Your task to perform on an android device: clear history in the chrome app Image 0: 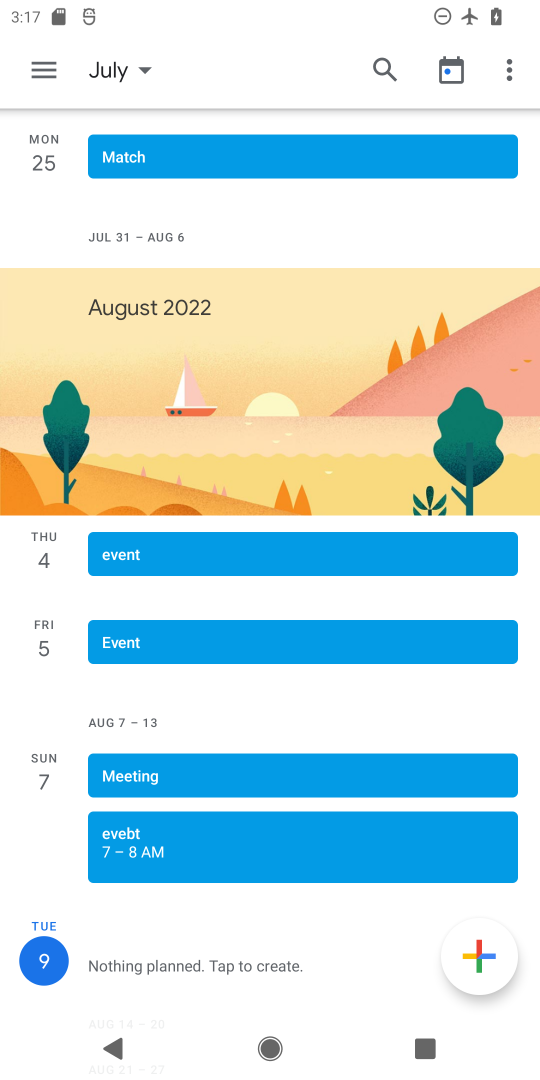
Step 0: press home button
Your task to perform on an android device: clear history in the chrome app Image 1: 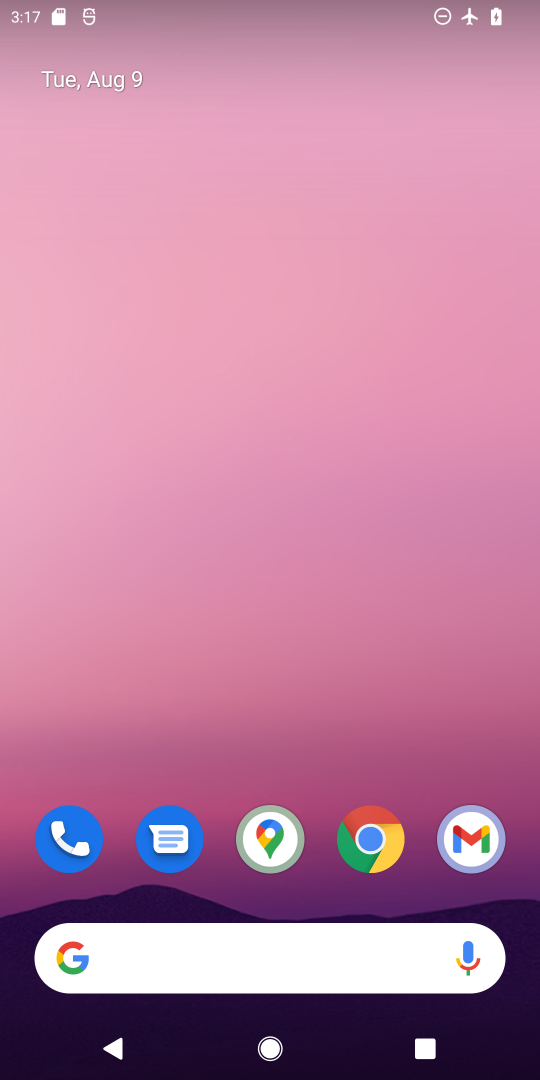
Step 1: drag from (328, 735) to (519, 1005)
Your task to perform on an android device: clear history in the chrome app Image 2: 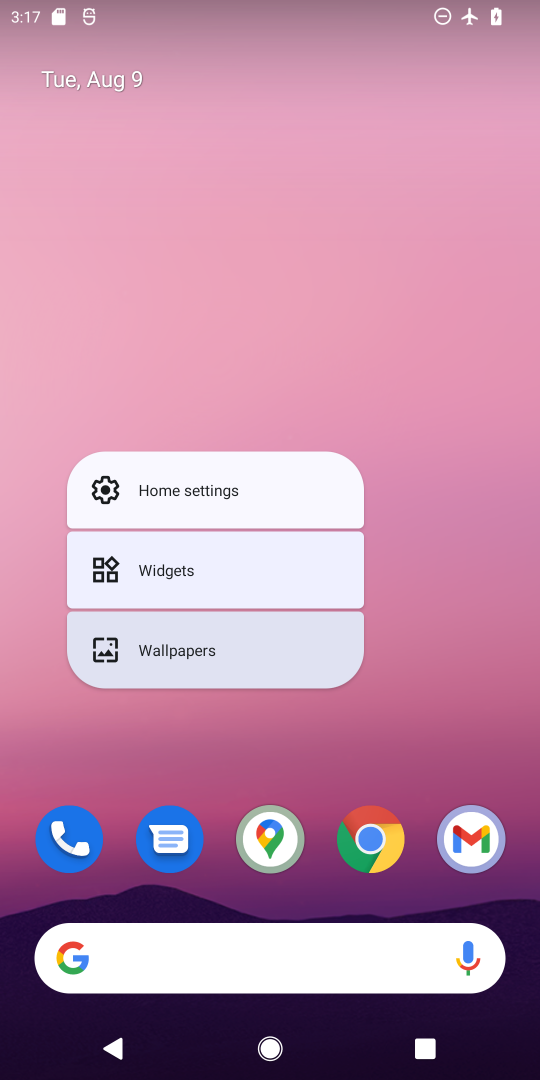
Step 2: click (381, 835)
Your task to perform on an android device: clear history in the chrome app Image 3: 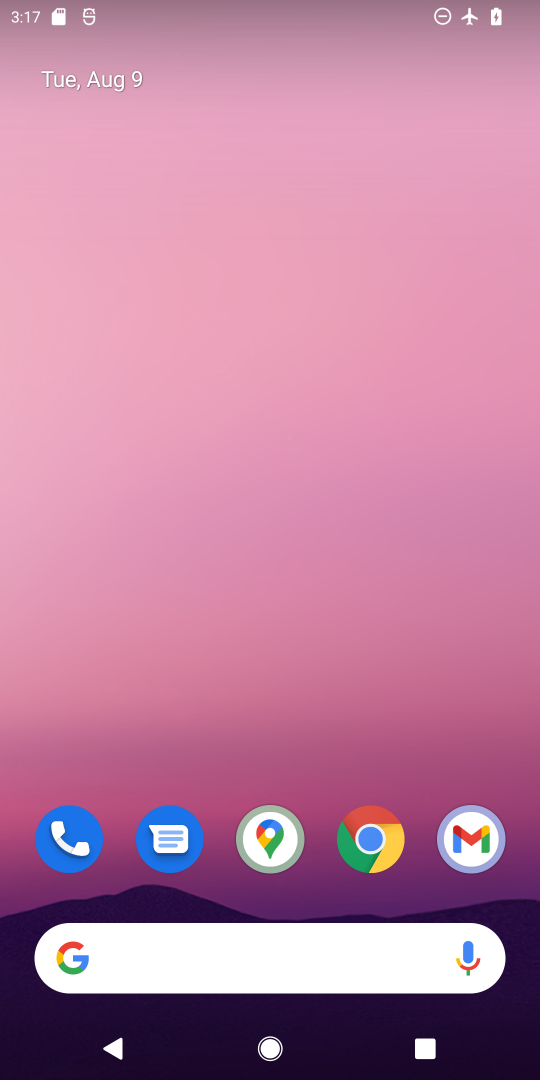
Step 3: click (370, 828)
Your task to perform on an android device: clear history in the chrome app Image 4: 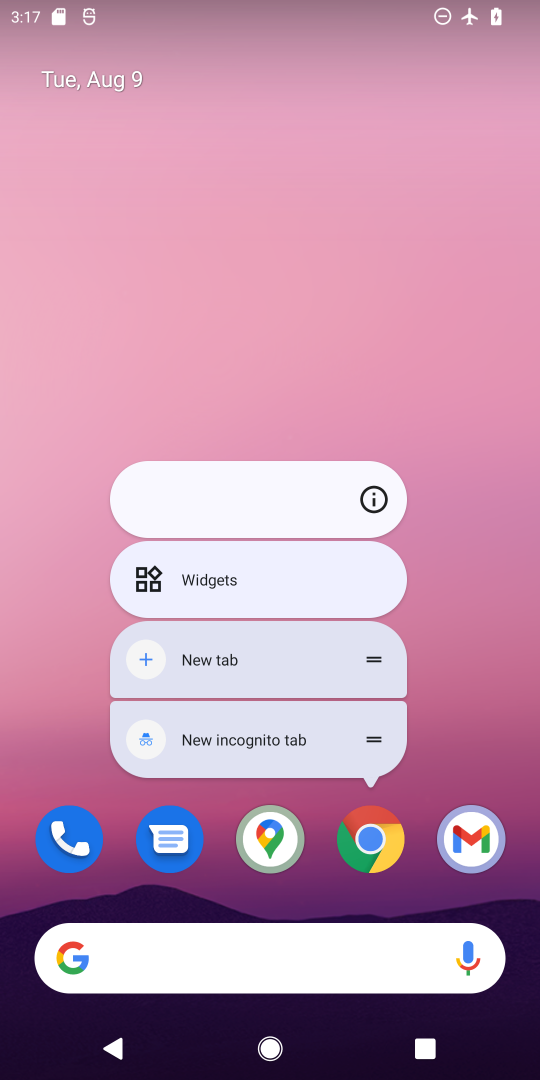
Step 4: click (386, 849)
Your task to perform on an android device: clear history in the chrome app Image 5: 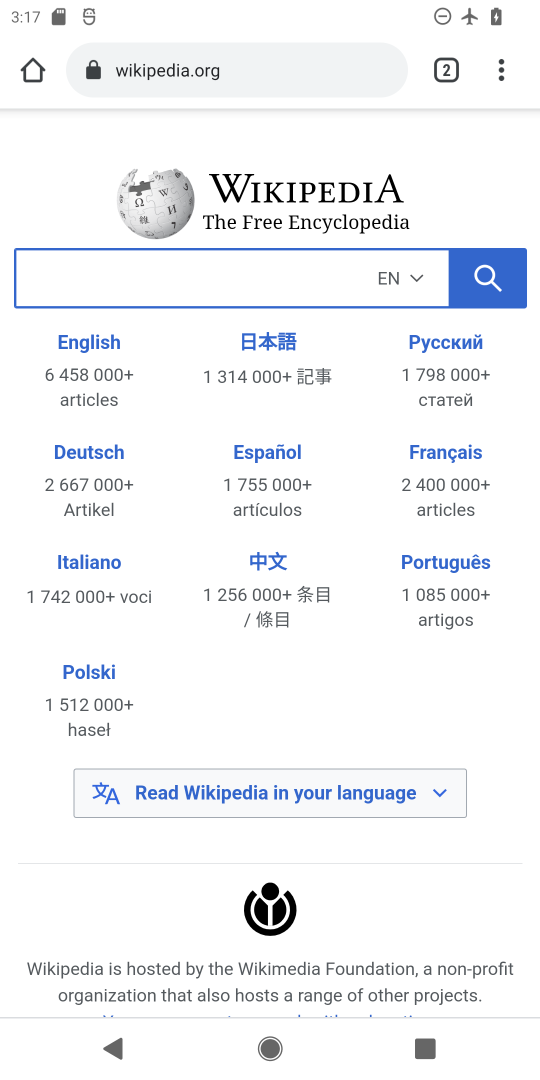
Step 5: drag from (498, 71) to (278, 837)
Your task to perform on an android device: clear history in the chrome app Image 6: 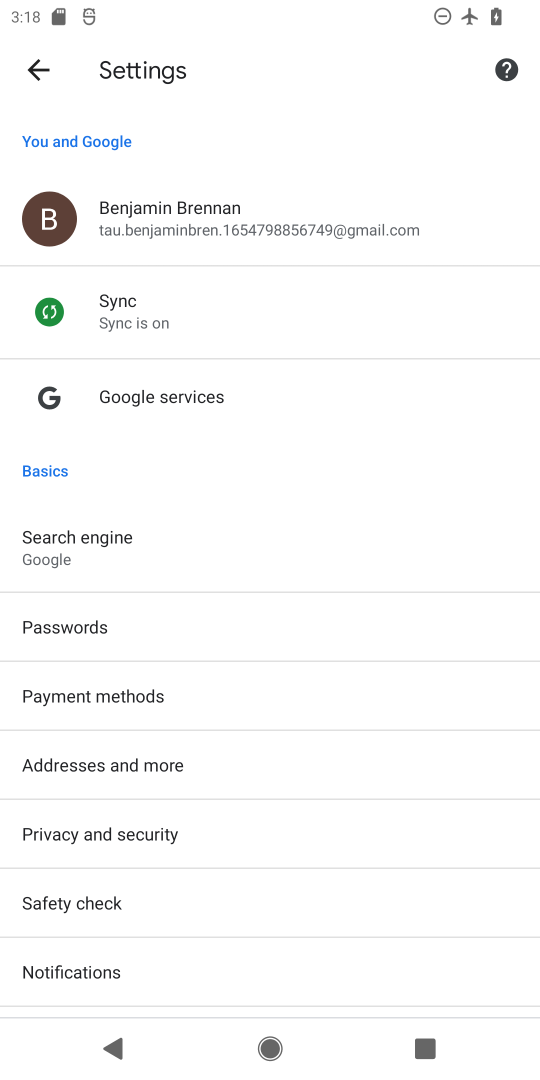
Step 6: click (87, 826)
Your task to perform on an android device: clear history in the chrome app Image 7: 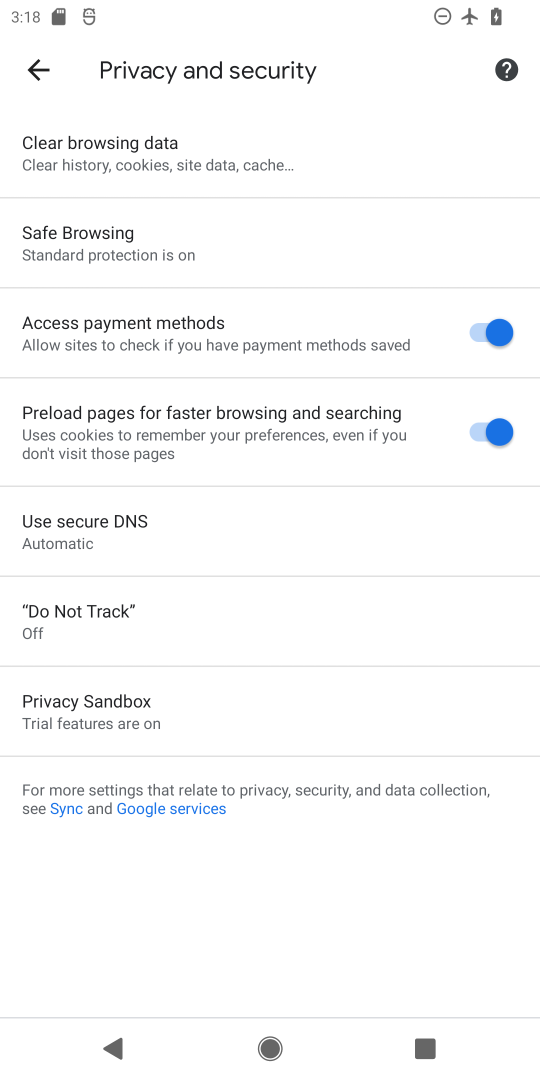
Step 7: click (205, 162)
Your task to perform on an android device: clear history in the chrome app Image 8: 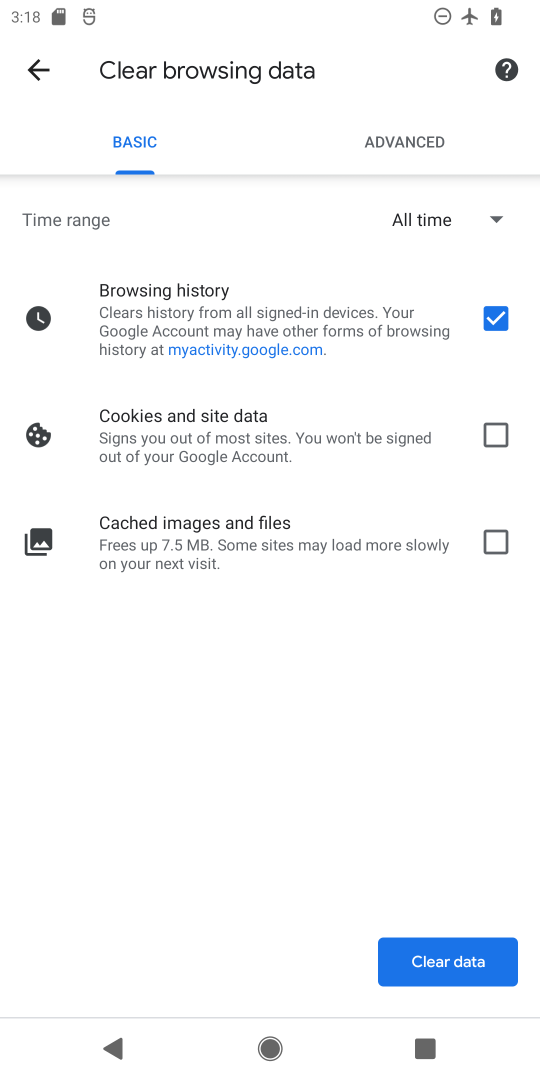
Step 8: click (445, 949)
Your task to perform on an android device: clear history in the chrome app Image 9: 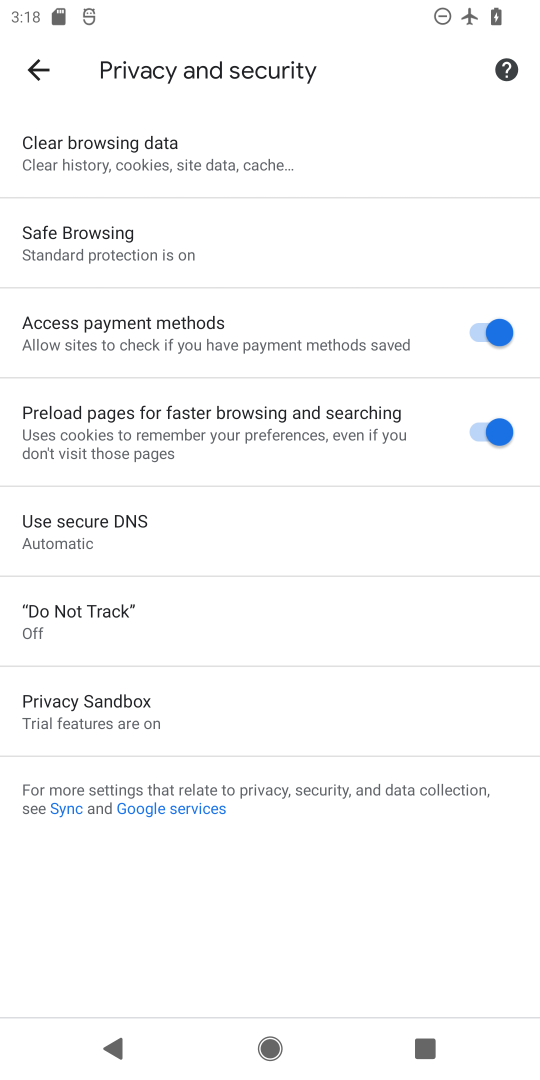
Step 9: task complete